Your task to perform on an android device: turn pop-ups off in chrome Image 0: 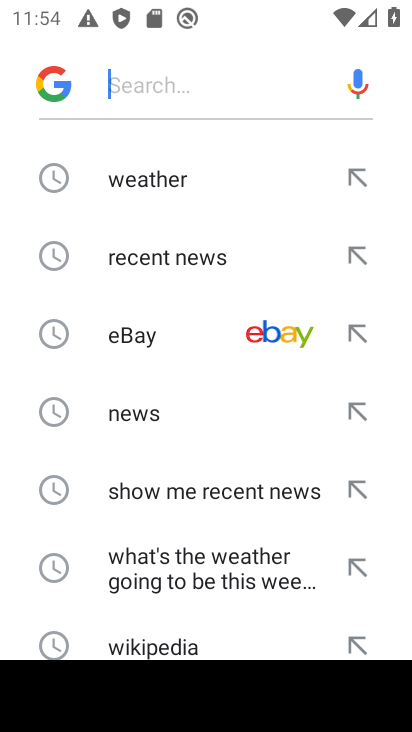
Step 0: press home button
Your task to perform on an android device: turn pop-ups off in chrome Image 1: 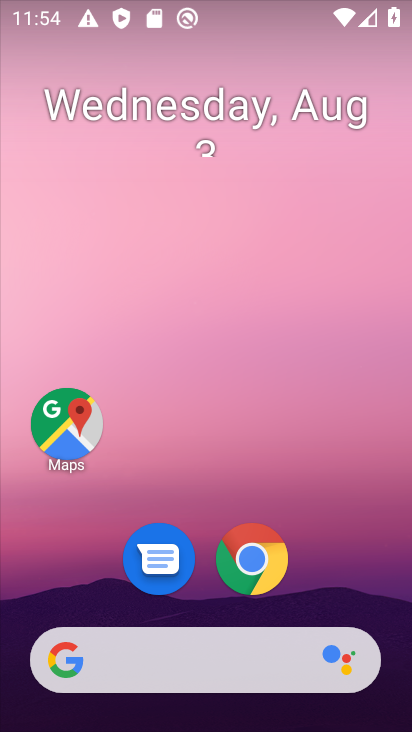
Step 1: click (253, 561)
Your task to perform on an android device: turn pop-ups off in chrome Image 2: 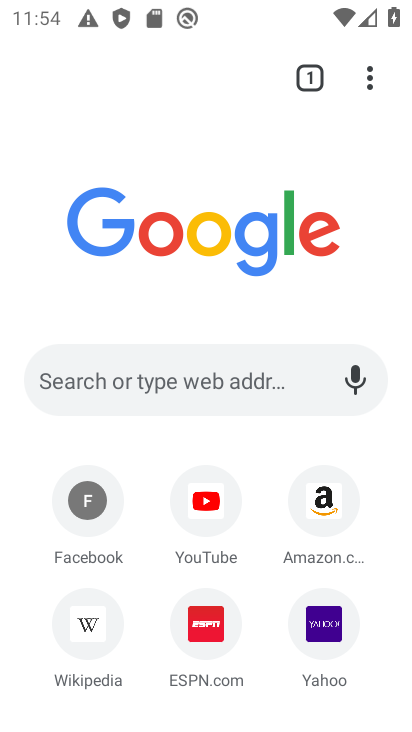
Step 2: click (371, 80)
Your task to perform on an android device: turn pop-ups off in chrome Image 3: 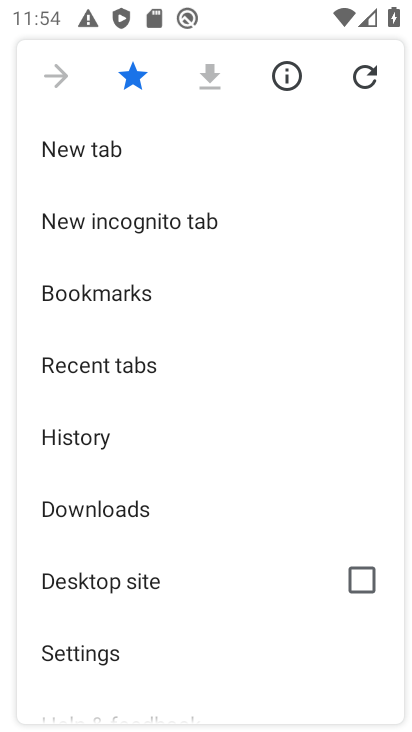
Step 3: drag from (114, 401) to (167, 310)
Your task to perform on an android device: turn pop-ups off in chrome Image 4: 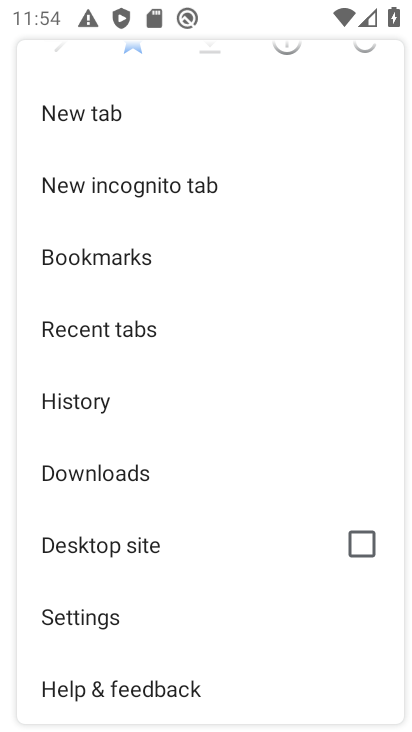
Step 4: drag from (79, 500) to (131, 414)
Your task to perform on an android device: turn pop-ups off in chrome Image 5: 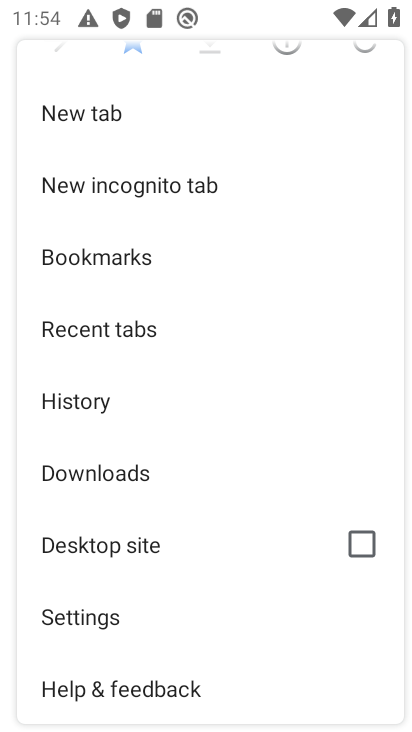
Step 5: drag from (83, 567) to (183, 447)
Your task to perform on an android device: turn pop-ups off in chrome Image 6: 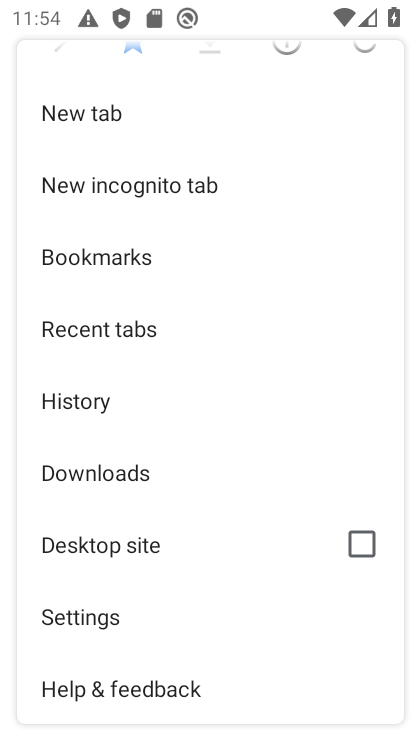
Step 6: click (108, 617)
Your task to perform on an android device: turn pop-ups off in chrome Image 7: 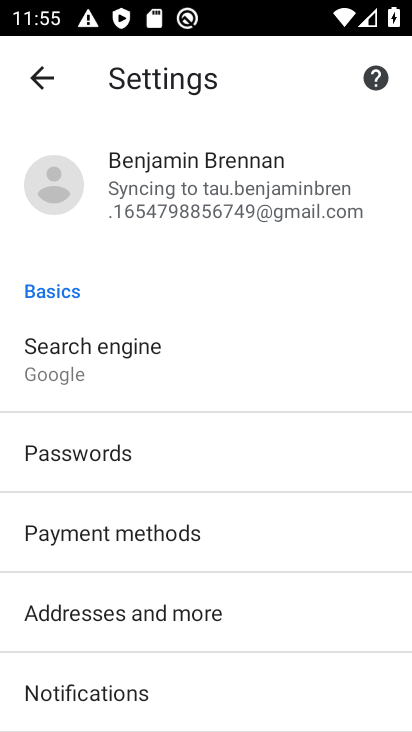
Step 7: drag from (136, 589) to (175, 481)
Your task to perform on an android device: turn pop-ups off in chrome Image 8: 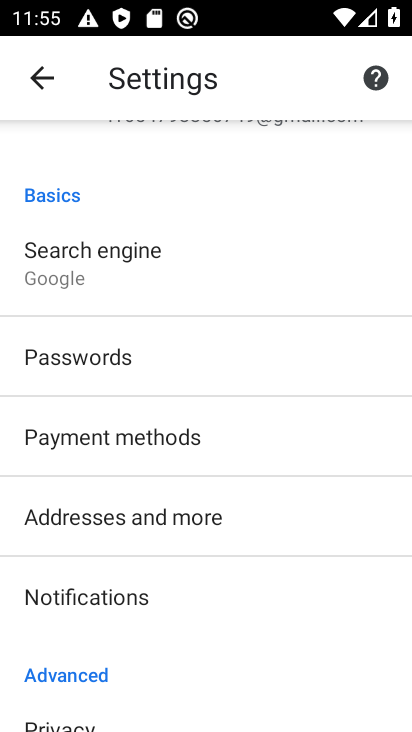
Step 8: drag from (143, 602) to (229, 480)
Your task to perform on an android device: turn pop-ups off in chrome Image 9: 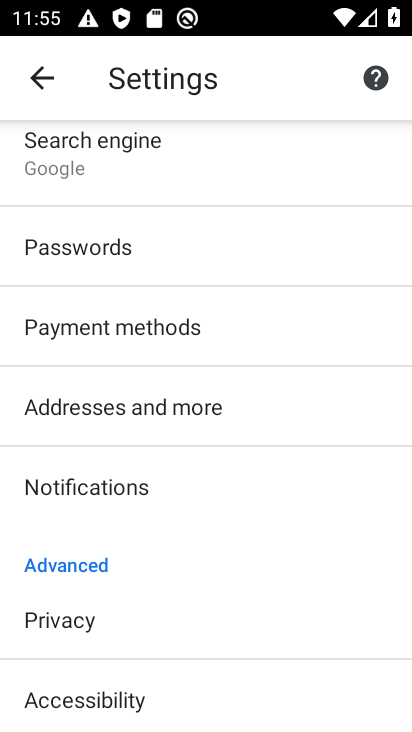
Step 9: drag from (144, 595) to (205, 469)
Your task to perform on an android device: turn pop-ups off in chrome Image 10: 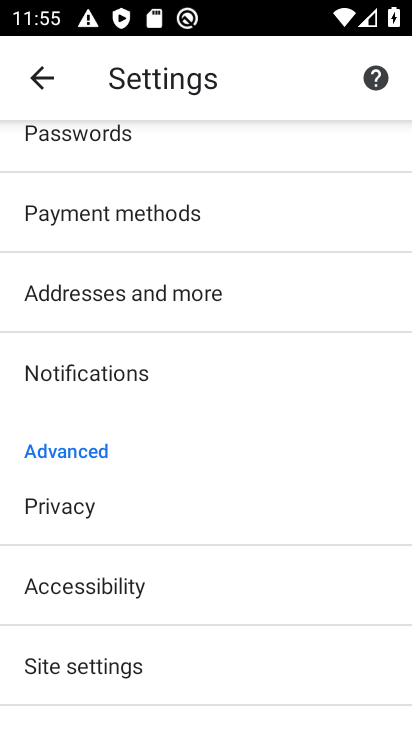
Step 10: drag from (151, 601) to (228, 501)
Your task to perform on an android device: turn pop-ups off in chrome Image 11: 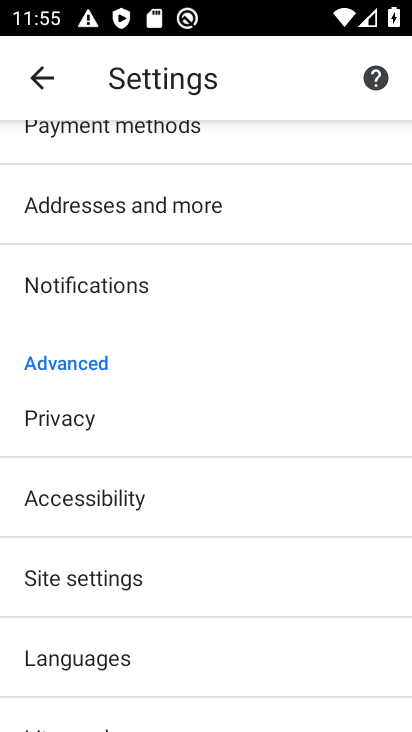
Step 11: click (112, 576)
Your task to perform on an android device: turn pop-ups off in chrome Image 12: 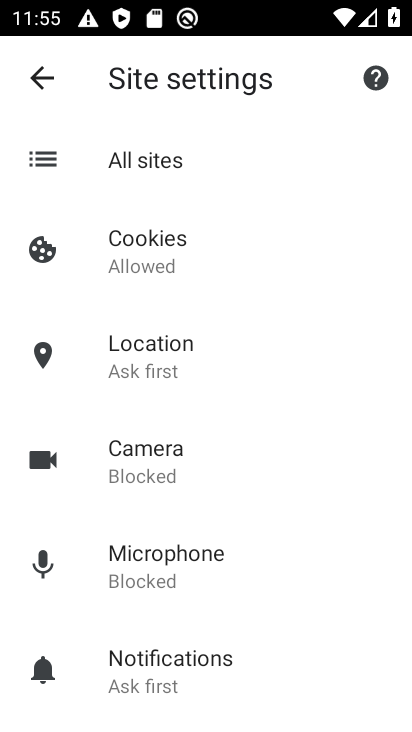
Step 12: drag from (206, 547) to (234, 439)
Your task to perform on an android device: turn pop-ups off in chrome Image 13: 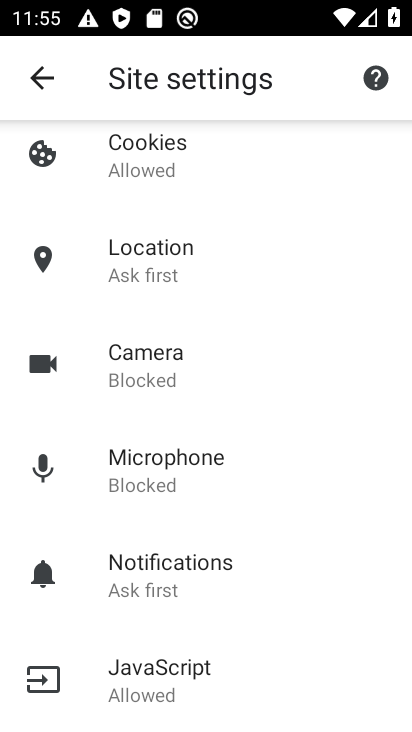
Step 13: drag from (188, 600) to (226, 500)
Your task to perform on an android device: turn pop-ups off in chrome Image 14: 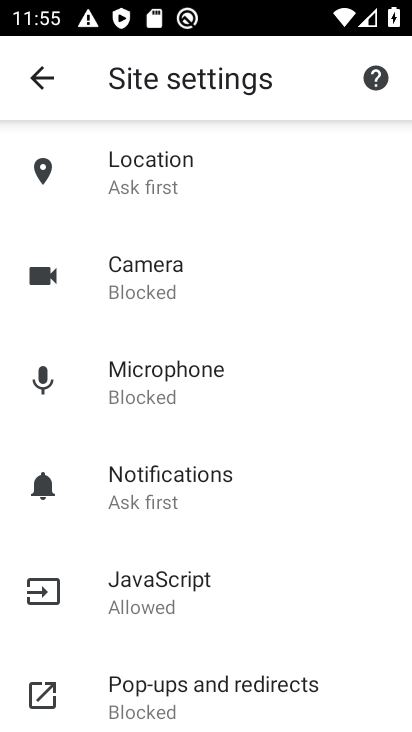
Step 14: drag from (185, 649) to (224, 559)
Your task to perform on an android device: turn pop-ups off in chrome Image 15: 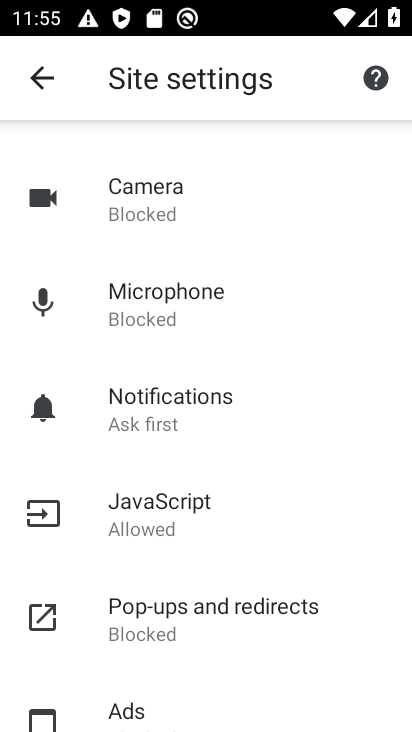
Step 15: click (203, 607)
Your task to perform on an android device: turn pop-ups off in chrome Image 16: 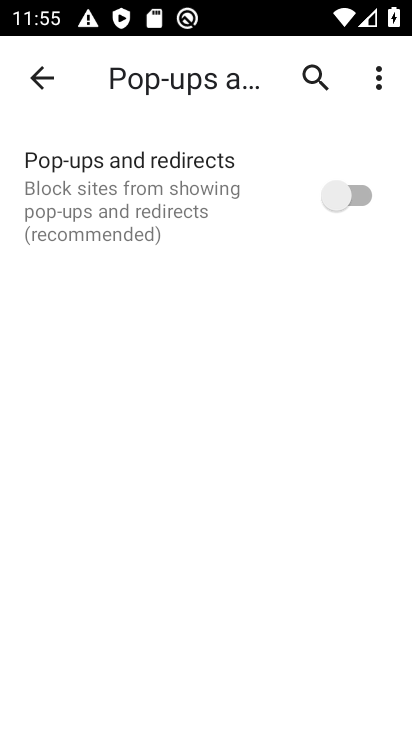
Step 16: task complete